Your task to perform on an android device: Open privacy settings Image 0: 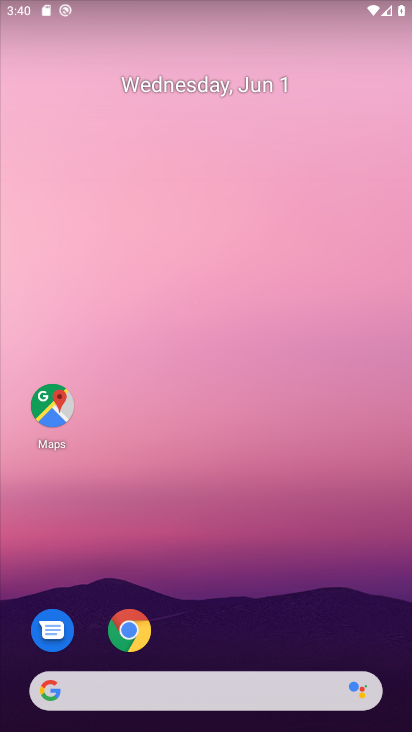
Step 0: drag from (218, 468) to (210, 0)
Your task to perform on an android device: Open privacy settings Image 1: 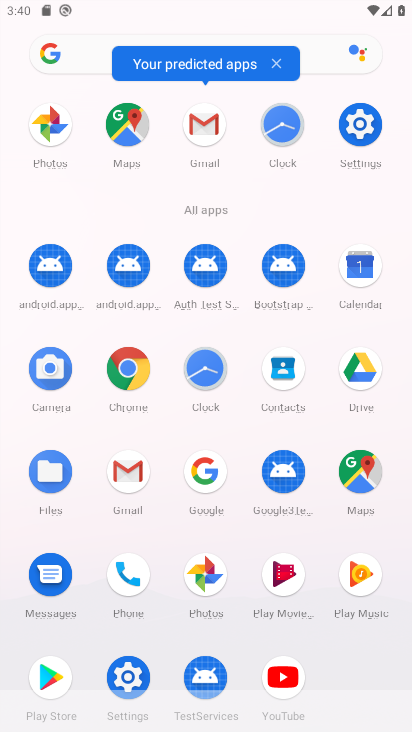
Step 1: click (364, 124)
Your task to perform on an android device: Open privacy settings Image 2: 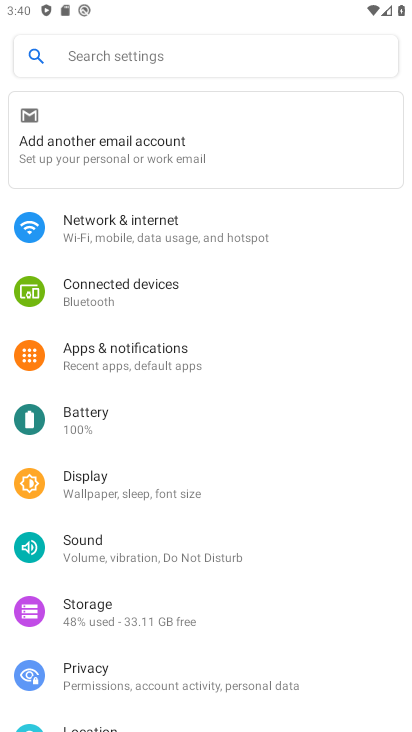
Step 2: click (130, 678)
Your task to perform on an android device: Open privacy settings Image 3: 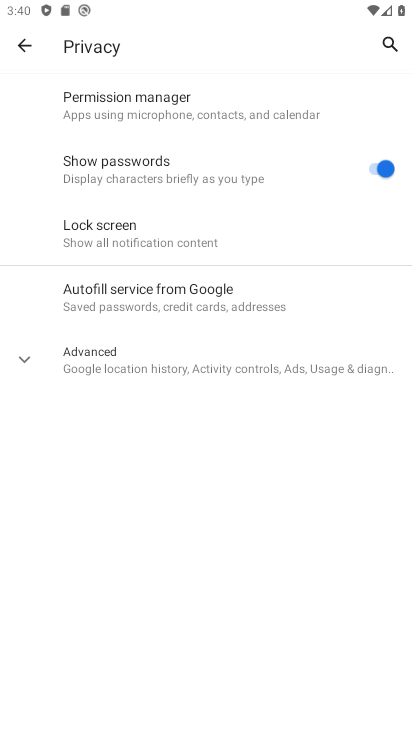
Step 3: task complete